Your task to perform on an android device: Open the phone app and click the voicemail tab. Image 0: 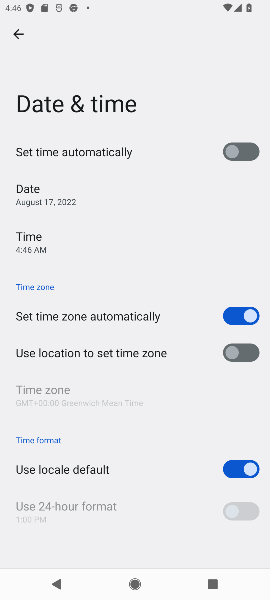
Step 0: press home button
Your task to perform on an android device: Open the phone app and click the voicemail tab. Image 1: 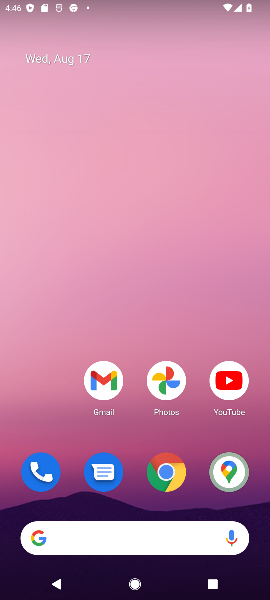
Step 1: click (33, 475)
Your task to perform on an android device: Open the phone app and click the voicemail tab. Image 2: 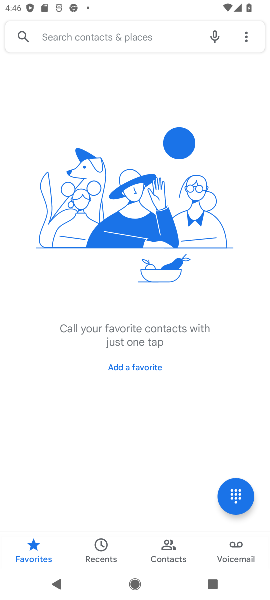
Step 2: click (226, 545)
Your task to perform on an android device: Open the phone app and click the voicemail tab. Image 3: 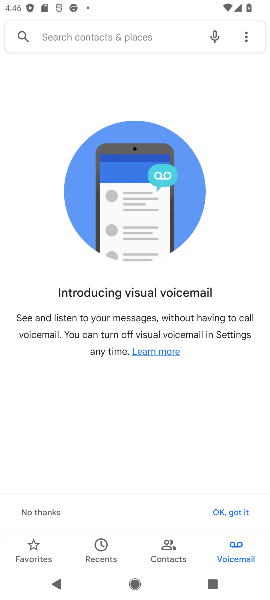
Step 3: click (219, 505)
Your task to perform on an android device: Open the phone app and click the voicemail tab. Image 4: 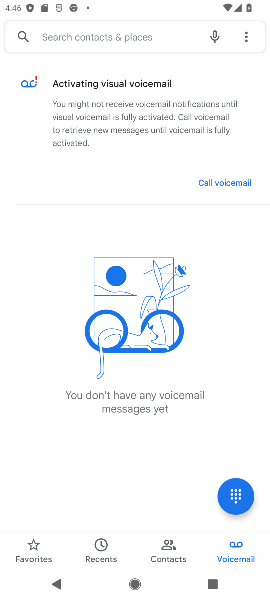
Step 4: click (236, 546)
Your task to perform on an android device: Open the phone app and click the voicemail tab. Image 5: 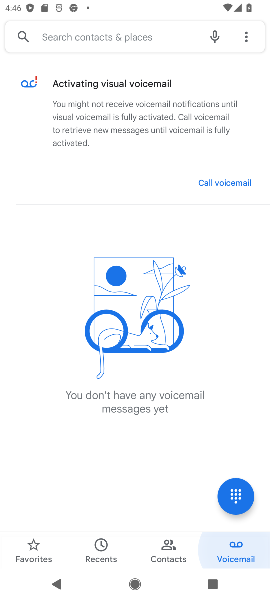
Step 5: task complete